Your task to perform on an android device: Is it going to rain tomorrow? Image 0: 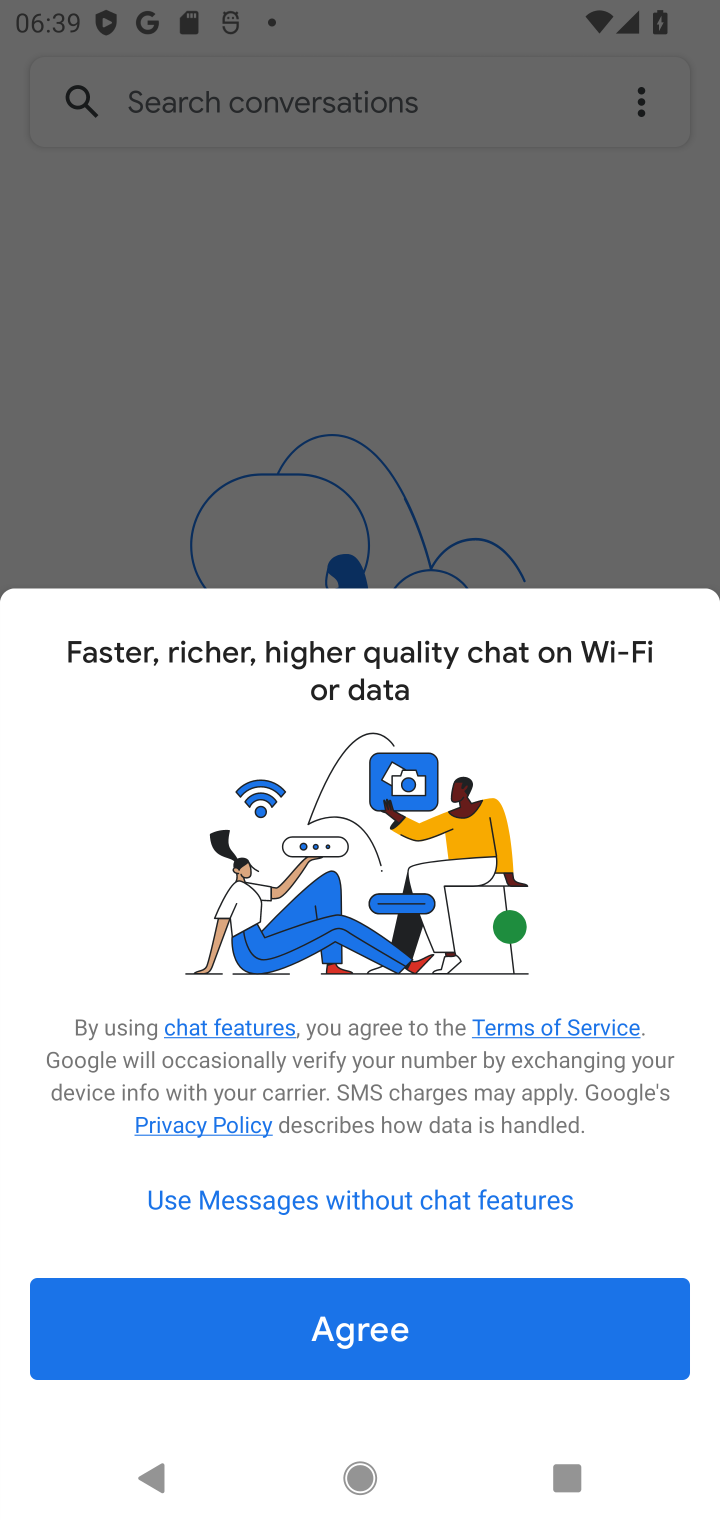
Step 0: press home button
Your task to perform on an android device: Is it going to rain tomorrow? Image 1: 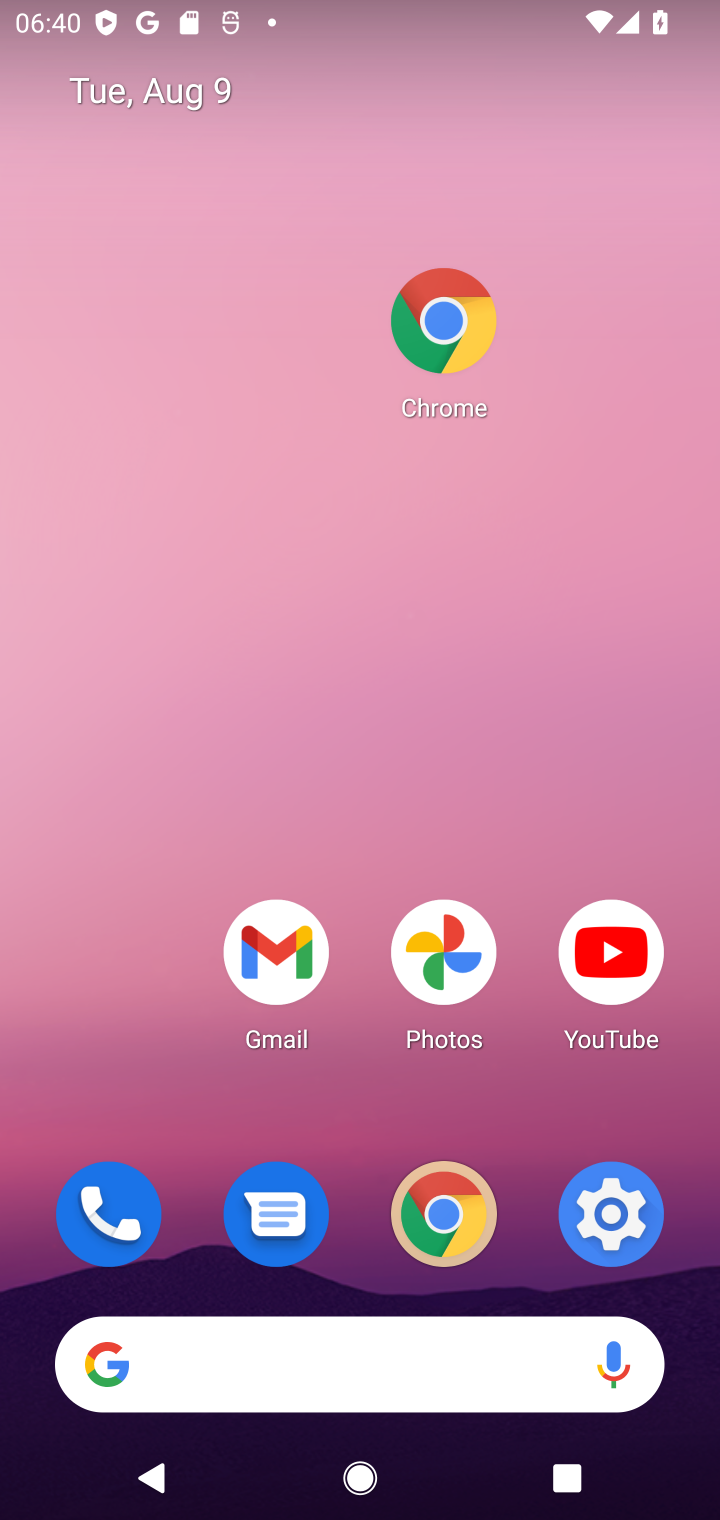
Step 1: click (327, 1381)
Your task to perform on an android device: Is it going to rain tomorrow? Image 2: 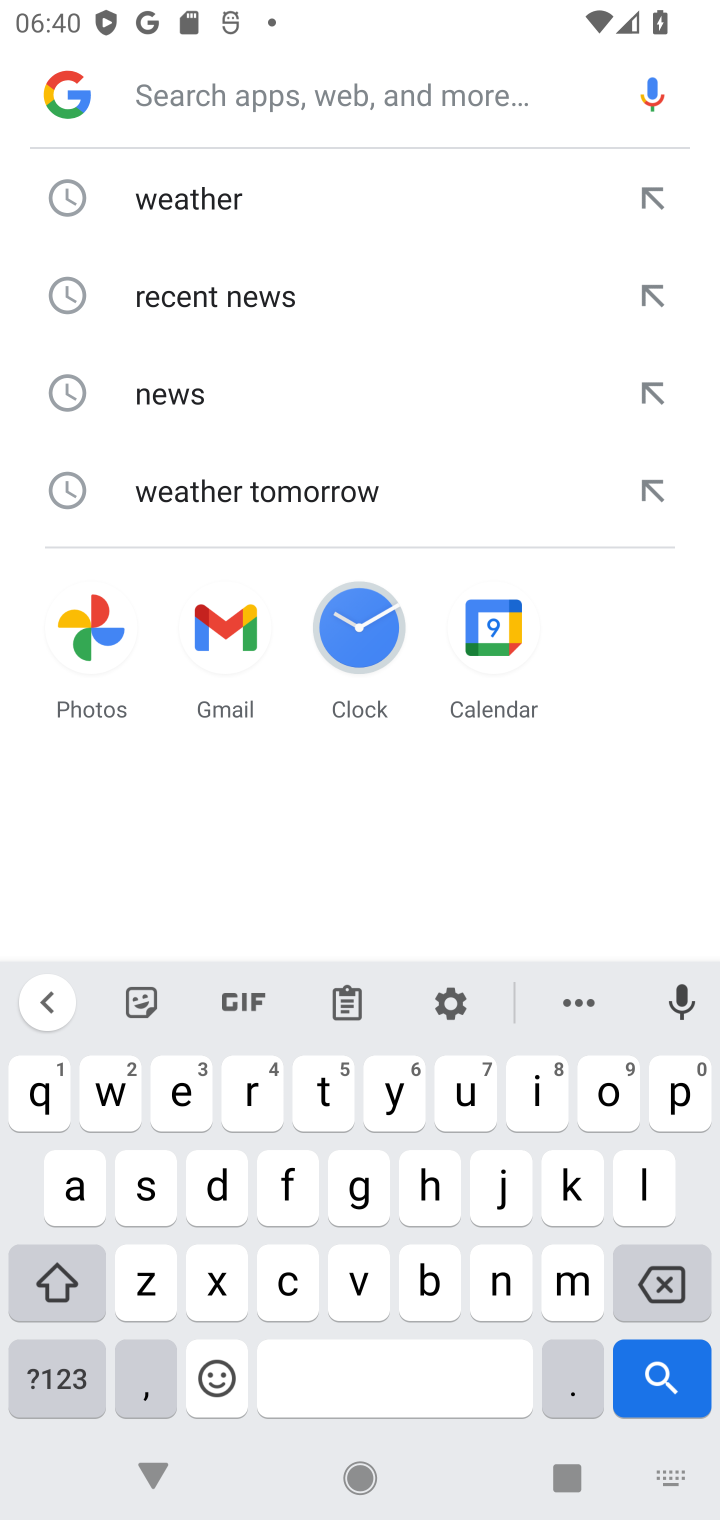
Step 2: click (538, 1098)
Your task to perform on an android device: Is it going to rain tomorrow? Image 3: 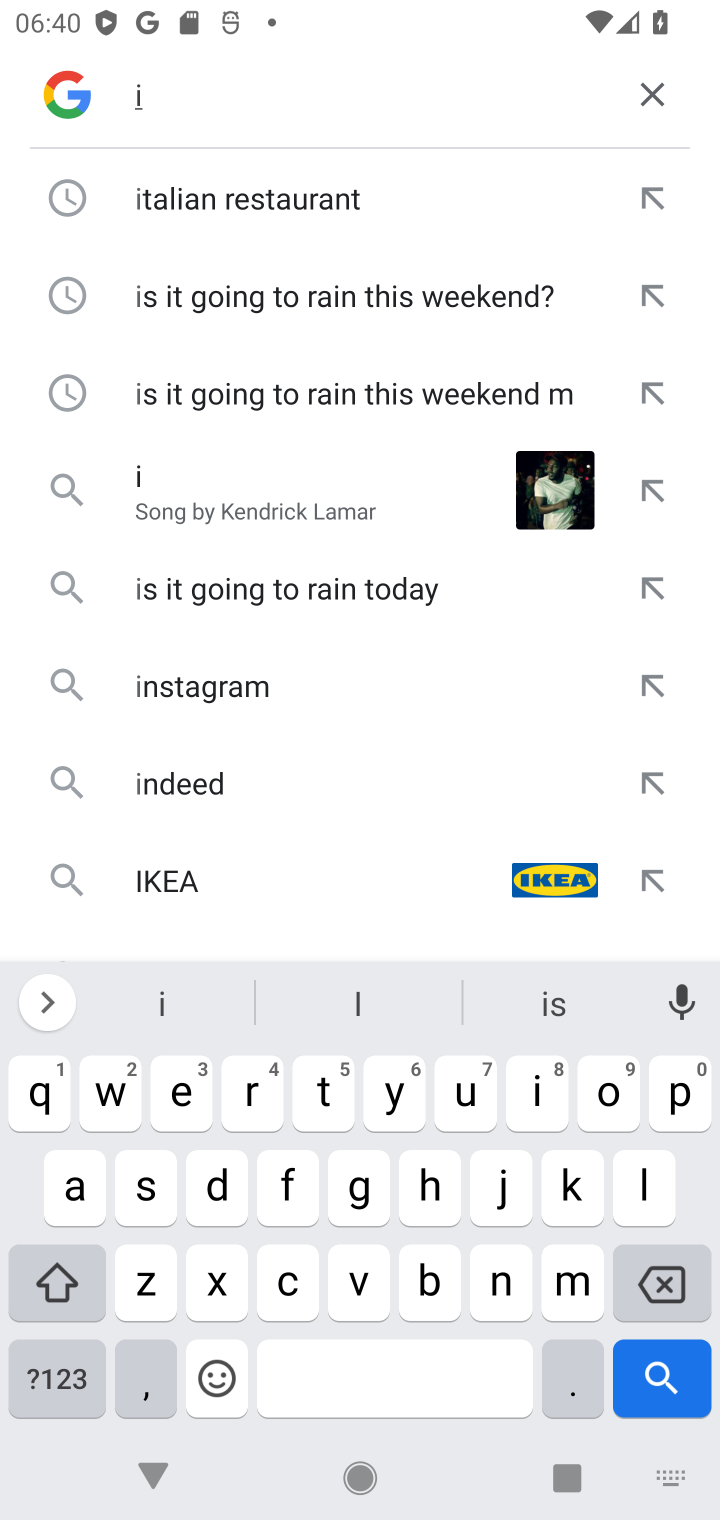
Step 3: click (140, 1190)
Your task to perform on an android device: Is it going to rain tomorrow? Image 4: 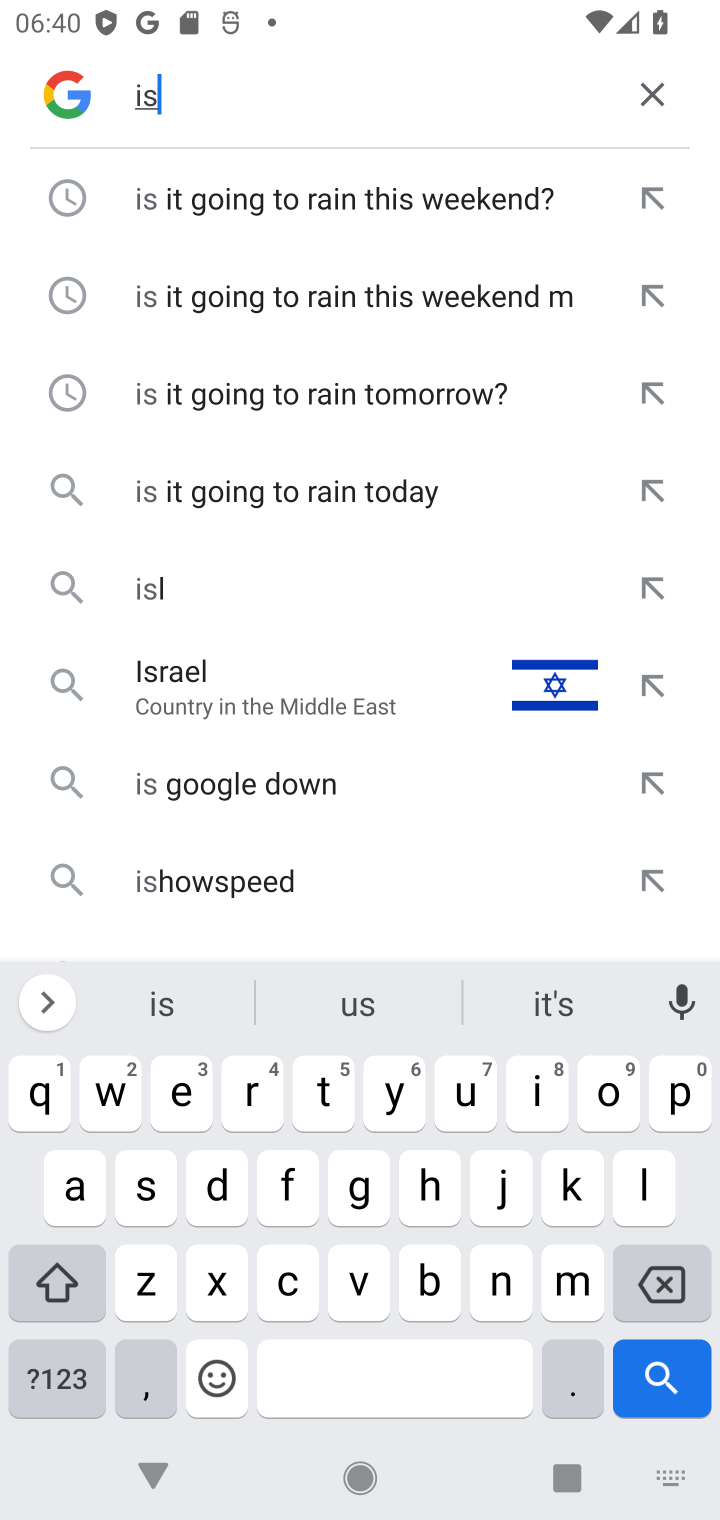
Step 4: click (318, 406)
Your task to perform on an android device: Is it going to rain tomorrow? Image 5: 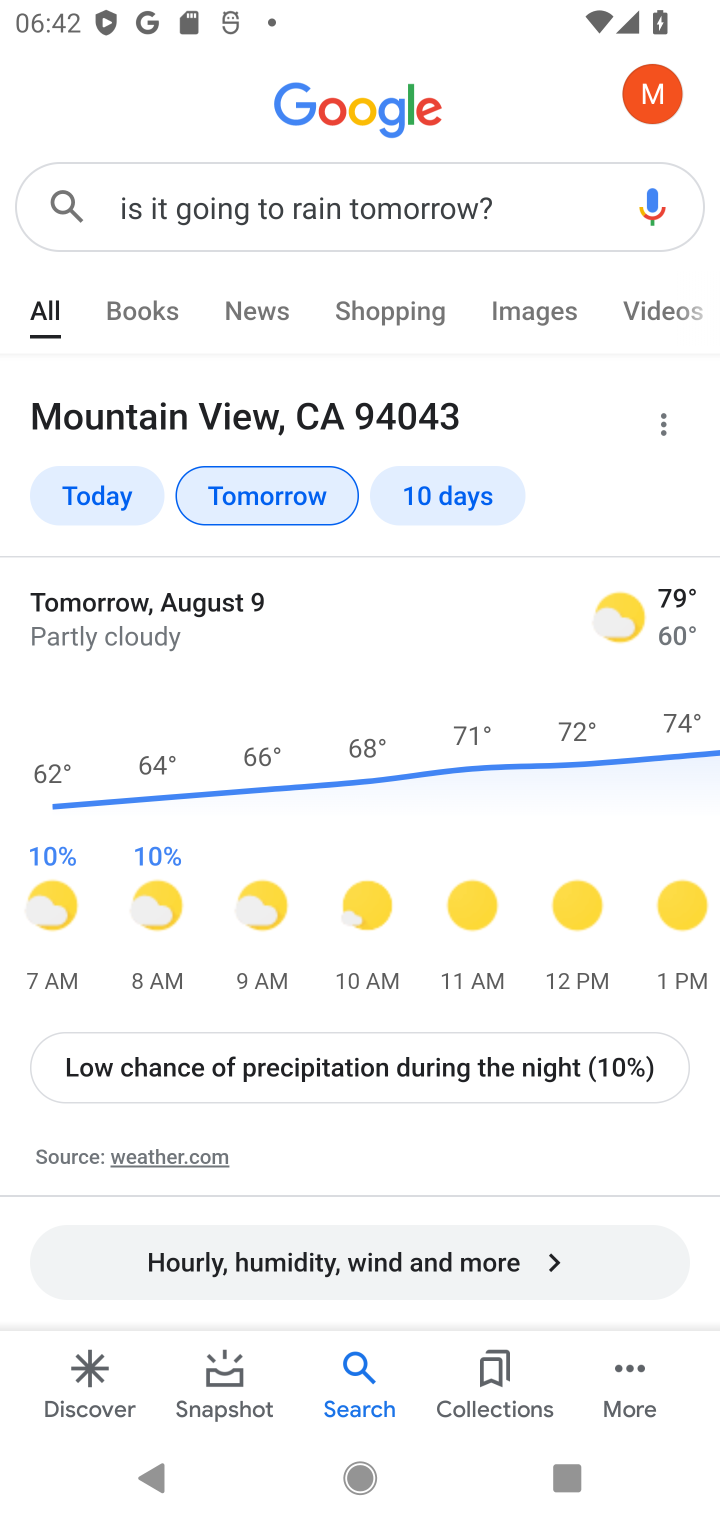
Step 5: task complete